Your task to perform on an android device: See recent photos Image 0: 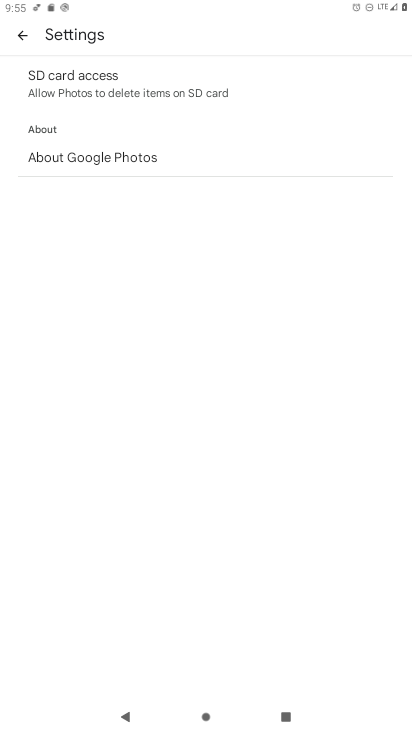
Step 0: press home button
Your task to perform on an android device: See recent photos Image 1: 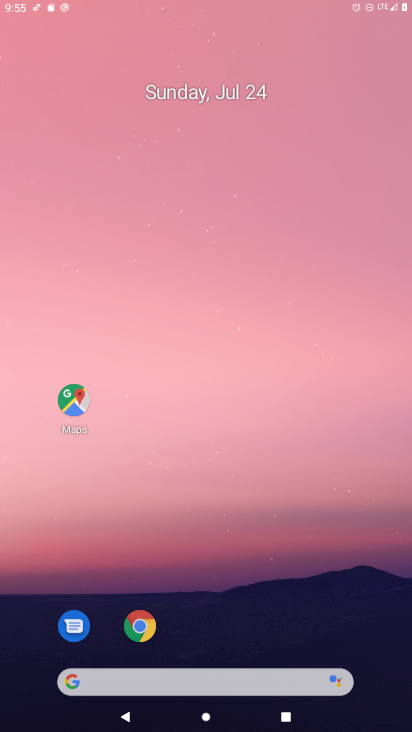
Step 1: drag from (330, 676) to (208, 118)
Your task to perform on an android device: See recent photos Image 2: 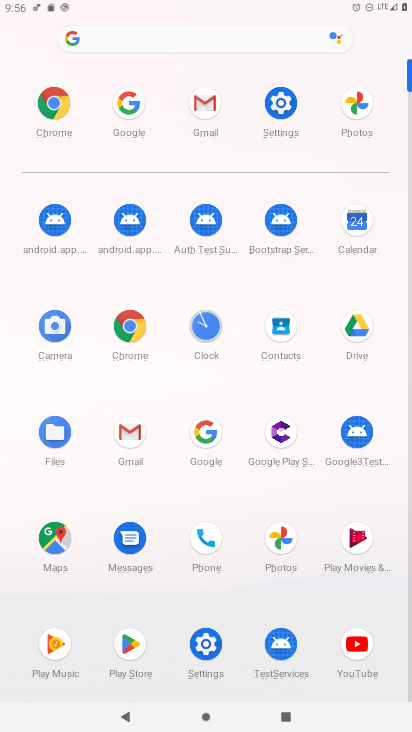
Step 2: click (289, 546)
Your task to perform on an android device: See recent photos Image 3: 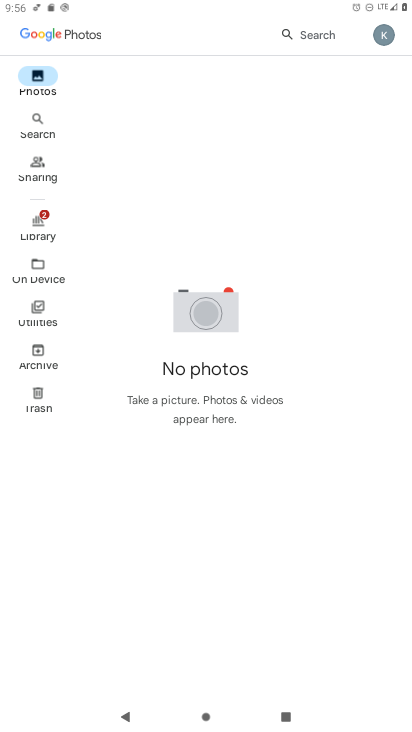
Step 3: task complete